Your task to perform on an android device: create a new album in the google photos Image 0: 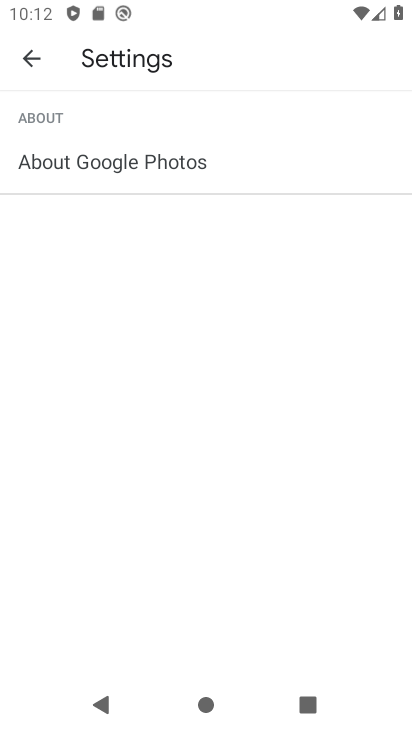
Step 0: press home button
Your task to perform on an android device: create a new album in the google photos Image 1: 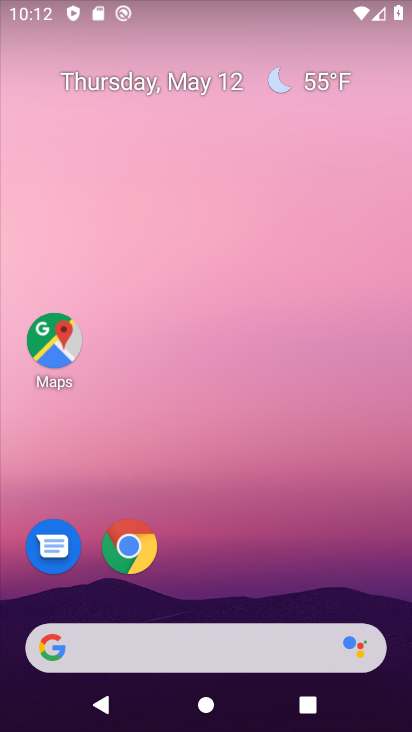
Step 1: drag from (208, 360) to (211, 182)
Your task to perform on an android device: create a new album in the google photos Image 2: 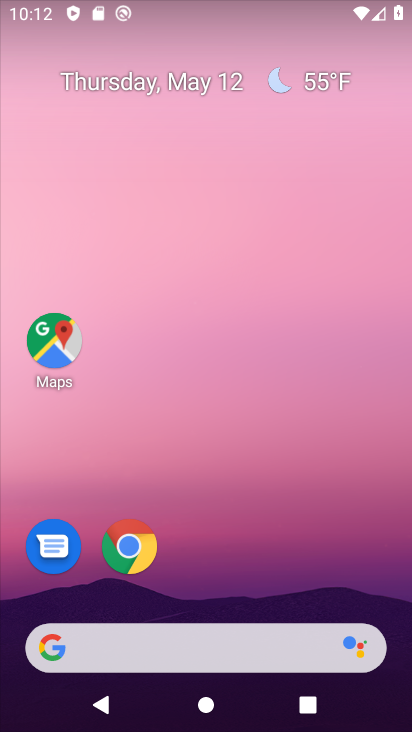
Step 2: drag from (168, 596) to (231, 215)
Your task to perform on an android device: create a new album in the google photos Image 3: 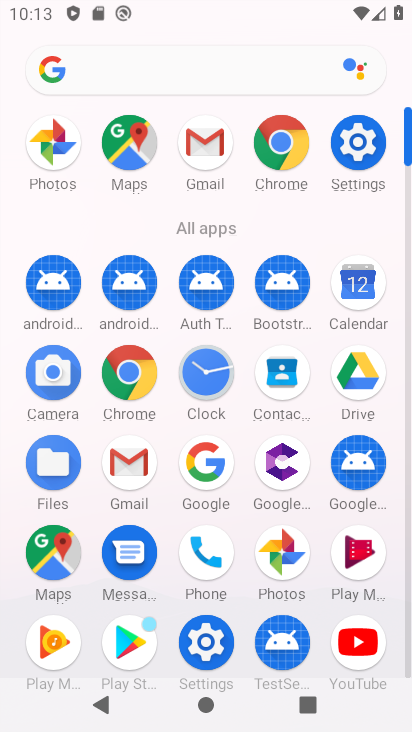
Step 3: click (281, 552)
Your task to perform on an android device: create a new album in the google photos Image 4: 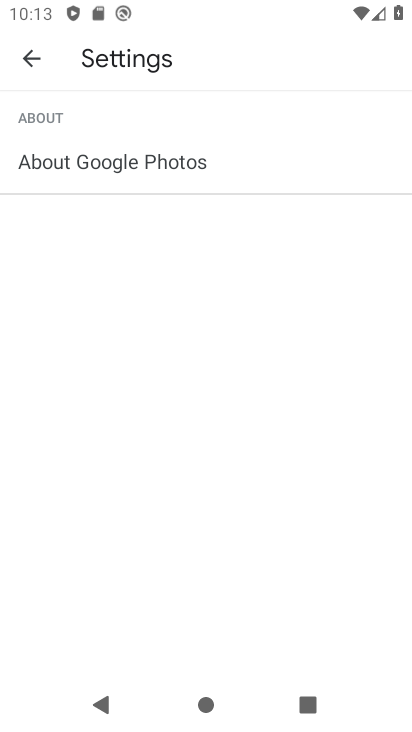
Step 4: click (29, 65)
Your task to perform on an android device: create a new album in the google photos Image 5: 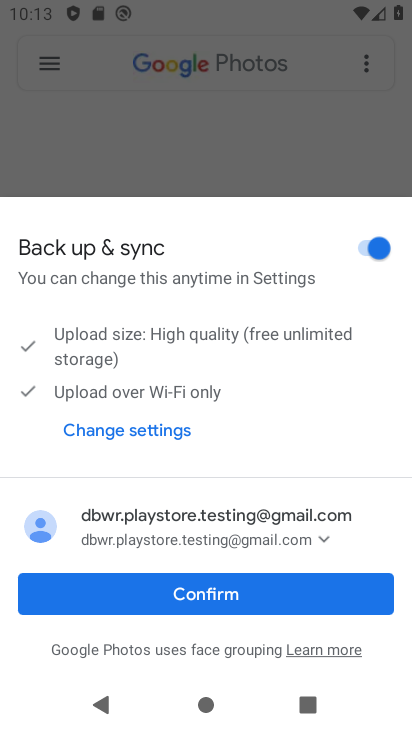
Step 5: click (209, 596)
Your task to perform on an android device: create a new album in the google photos Image 6: 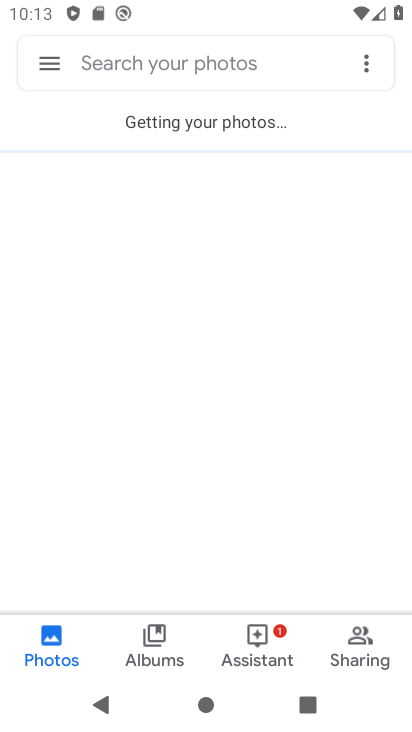
Step 6: click (368, 60)
Your task to perform on an android device: create a new album in the google photos Image 7: 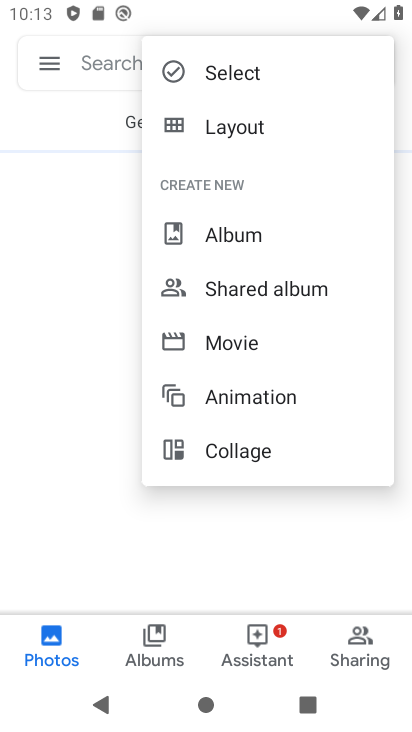
Step 7: click (198, 232)
Your task to perform on an android device: create a new album in the google photos Image 8: 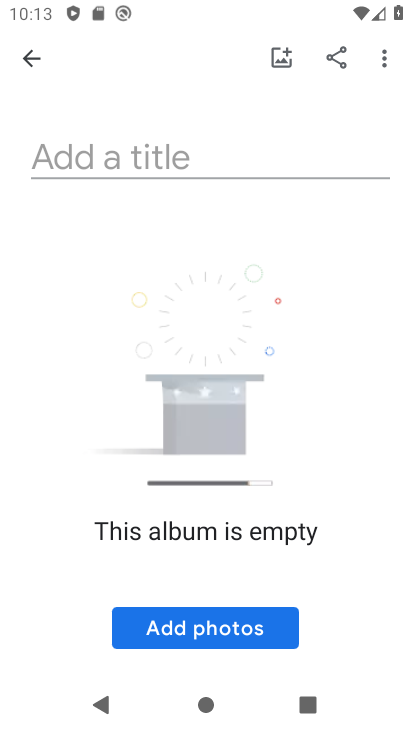
Step 8: click (55, 145)
Your task to perform on an android device: create a new album in the google photos Image 9: 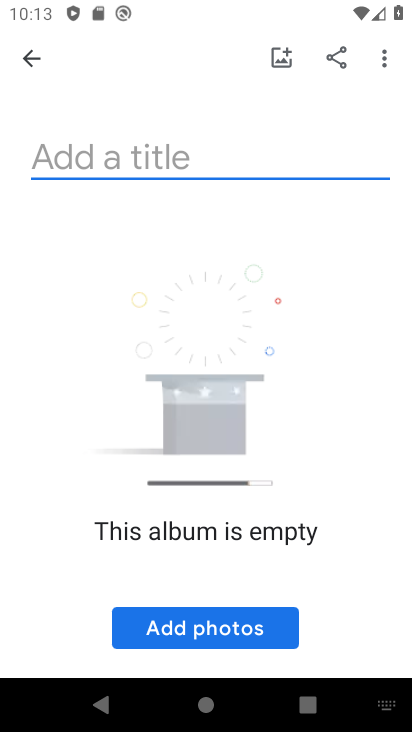
Step 9: type "fhgv"
Your task to perform on an android device: create a new album in the google photos Image 10: 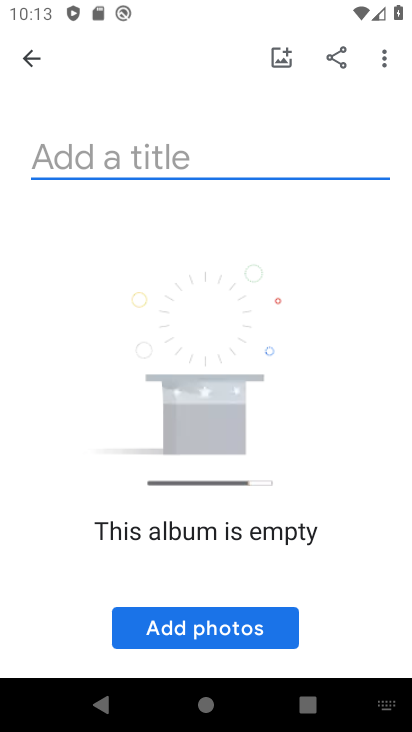
Step 10: click (263, 631)
Your task to perform on an android device: create a new album in the google photos Image 11: 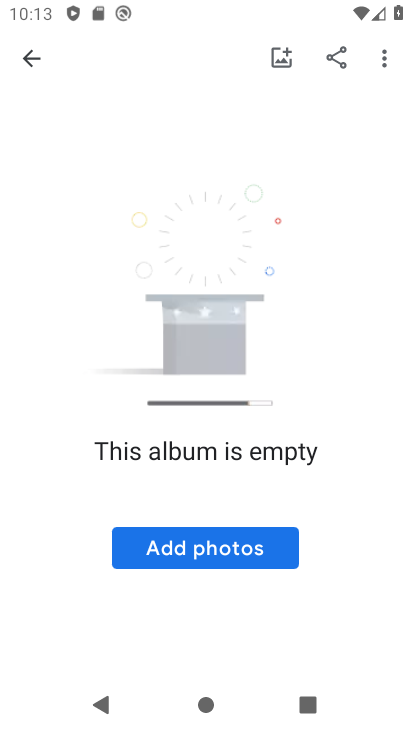
Step 11: click (174, 558)
Your task to perform on an android device: create a new album in the google photos Image 12: 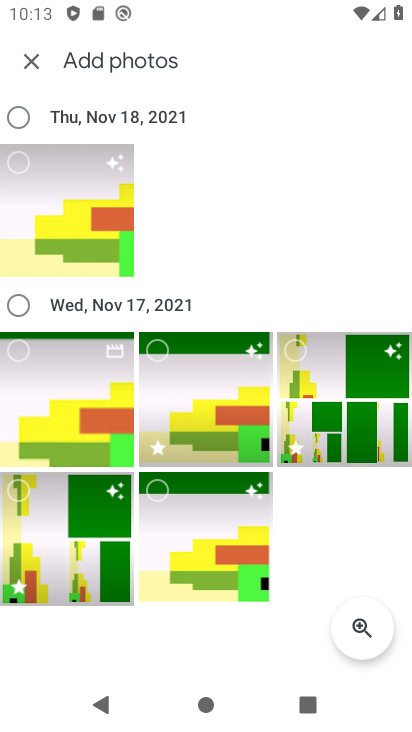
Step 12: click (14, 167)
Your task to perform on an android device: create a new album in the google photos Image 13: 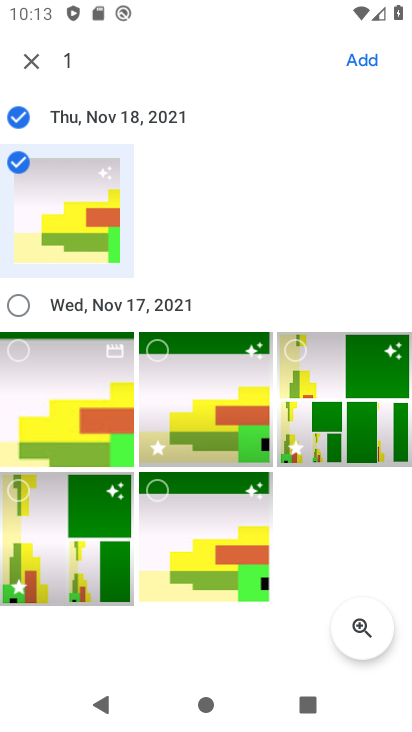
Step 13: click (351, 68)
Your task to perform on an android device: create a new album in the google photos Image 14: 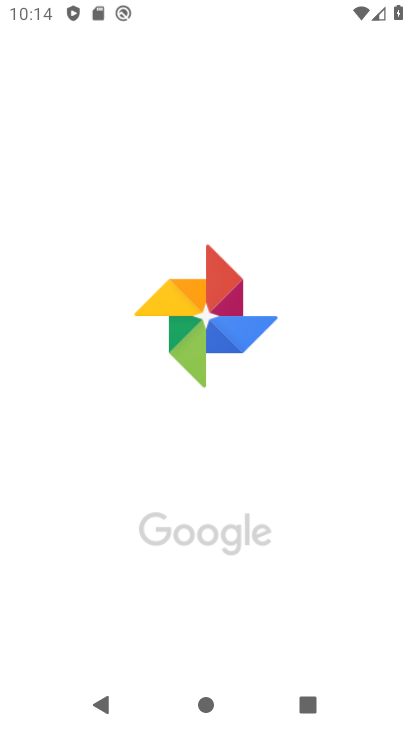
Step 14: task complete